Your task to perform on an android device: Add "razer thresher" to the cart on target, then select checkout. Image 0: 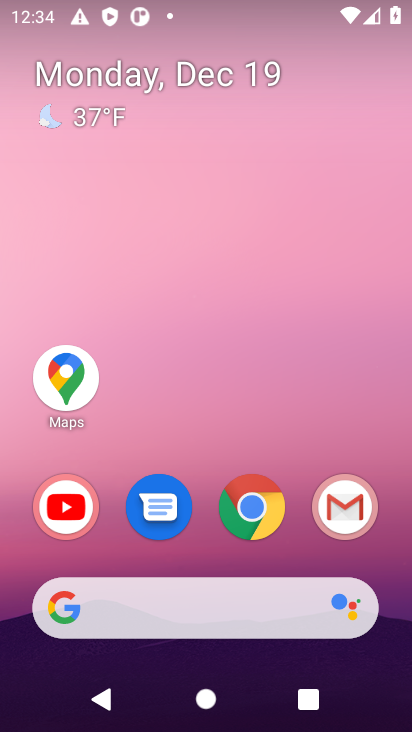
Step 0: click (249, 509)
Your task to perform on an android device: Add "razer thresher" to the cart on target, then select checkout. Image 1: 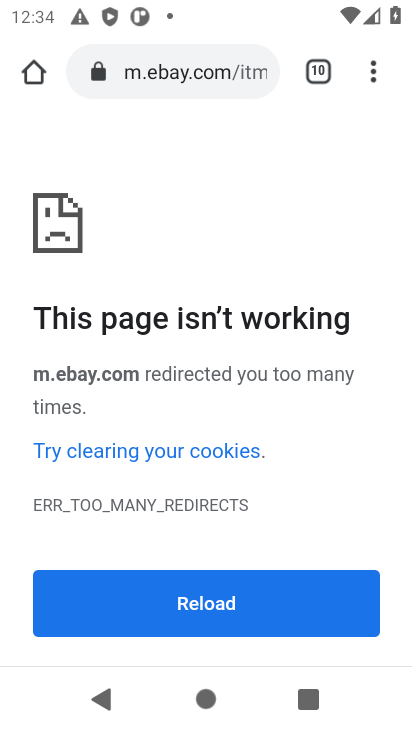
Step 1: click (170, 70)
Your task to perform on an android device: Add "razer thresher" to the cart on target, then select checkout. Image 2: 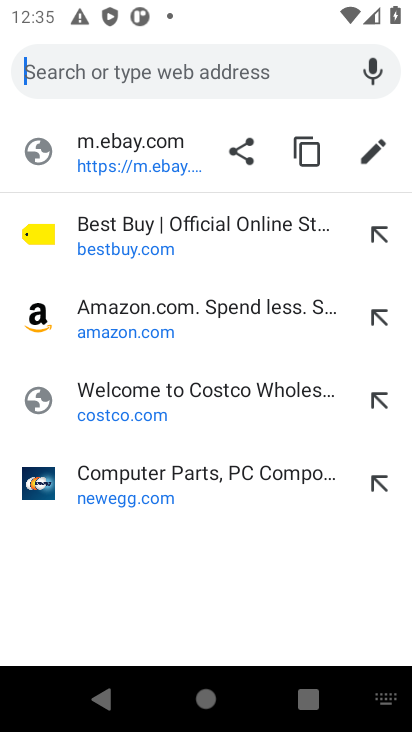
Step 2: type "target.com"
Your task to perform on an android device: Add "razer thresher" to the cart on target, then select checkout. Image 3: 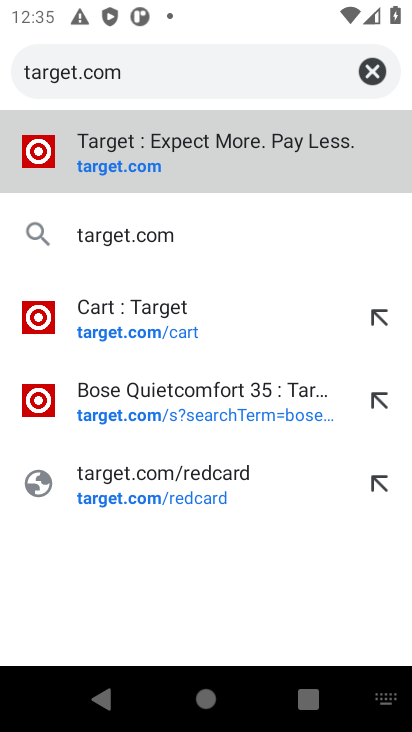
Step 3: click (125, 167)
Your task to perform on an android device: Add "razer thresher" to the cart on target, then select checkout. Image 4: 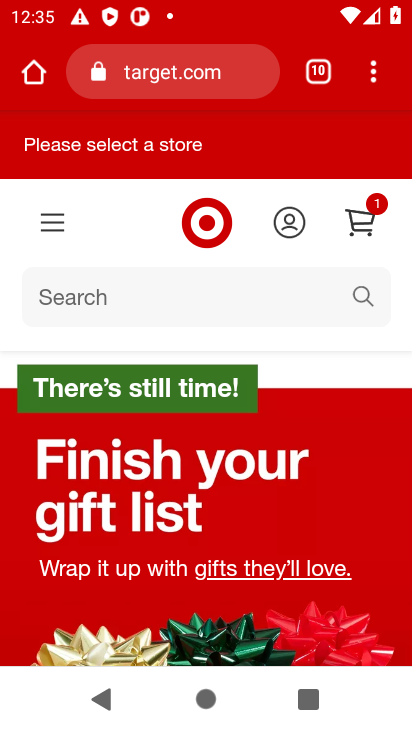
Step 4: click (49, 296)
Your task to perform on an android device: Add "razer thresher" to the cart on target, then select checkout. Image 5: 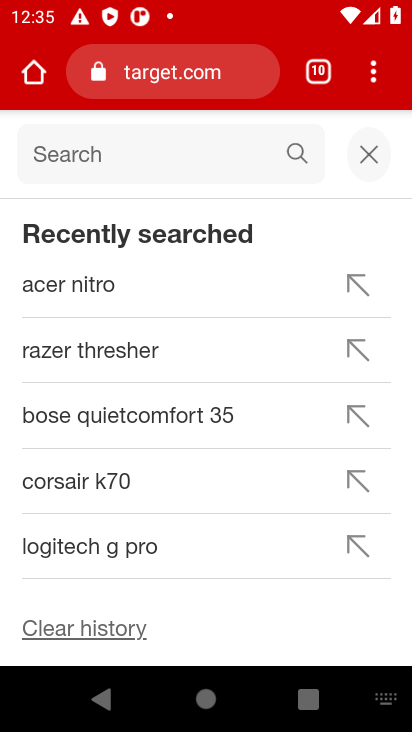
Step 5: type "razer thresher"
Your task to perform on an android device: Add "razer thresher" to the cart on target, then select checkout. Image 6: 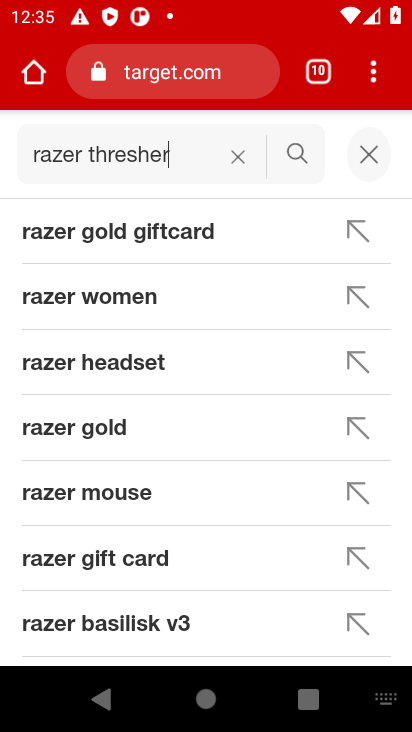
Step 6: click (294, 156)
Your task to perform on an android device: Add "razer thresher" to the cart on target, then select checkout. Image 7: 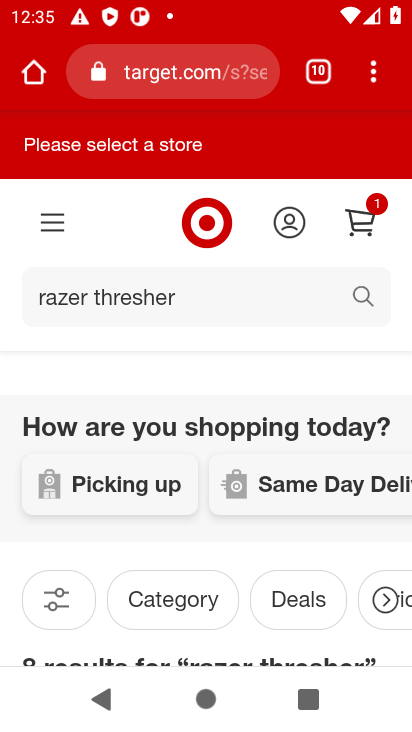
Step 7: task complete